Your task to perform on an android device: move a message to another label in the gmail app Image 0: 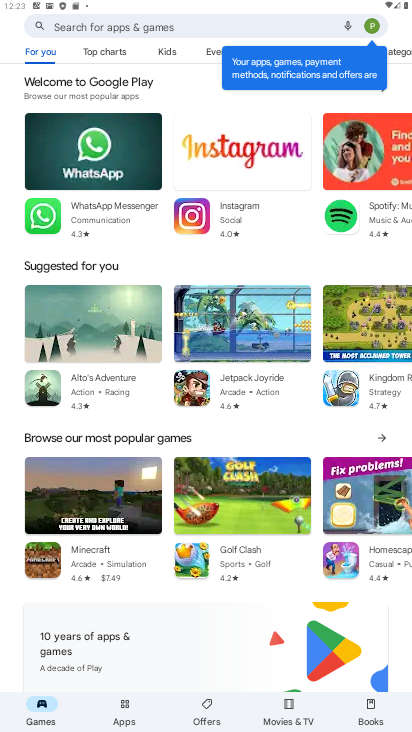
Step 0: press home button
Your task to perform on an android device: move a message to another label in the gmail app Image 1: 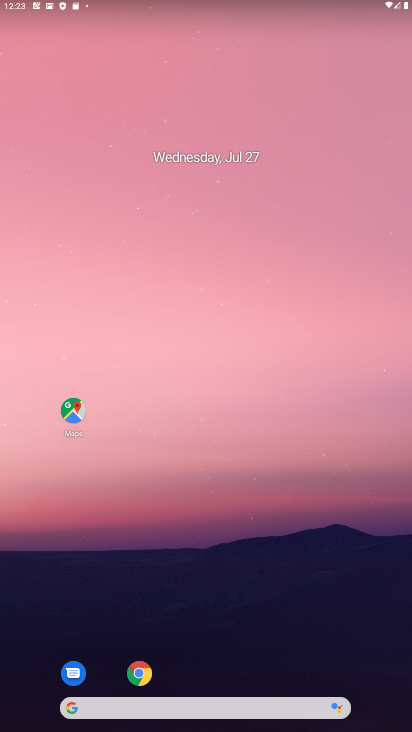
Step 1: drag from (188, 655) to (252, 142)
Your task to perform on an android device: move a message to another label in the gmail app Image 2: 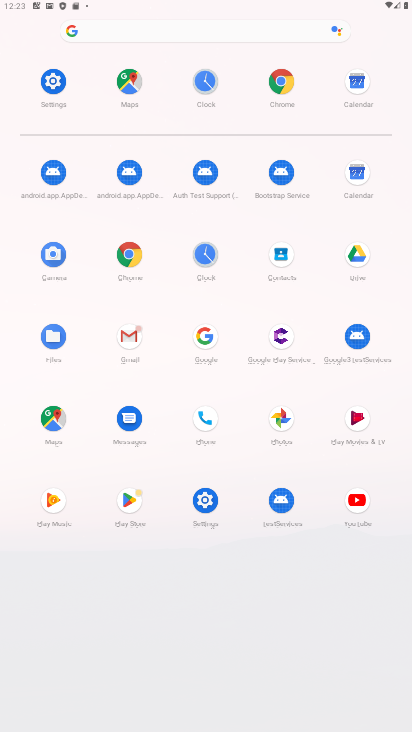
Step 2: click (124, 342)
Your task to perform on an android device: move a message to another label in the gmail app Image 3: 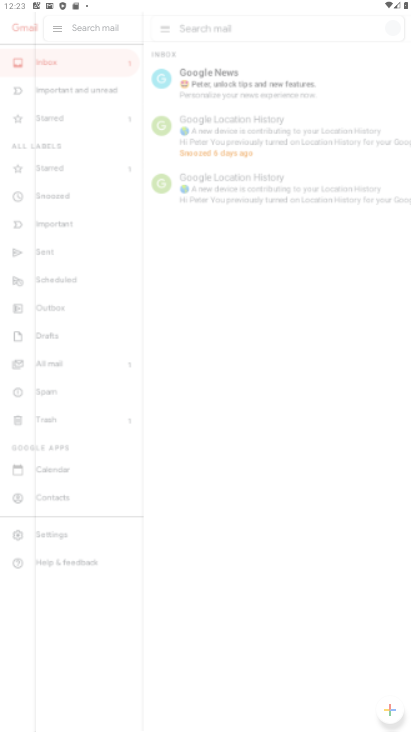
Step 3: click (206, 121)
Your task to perform on an android device: move a message to another label in the gmail app Image 4: 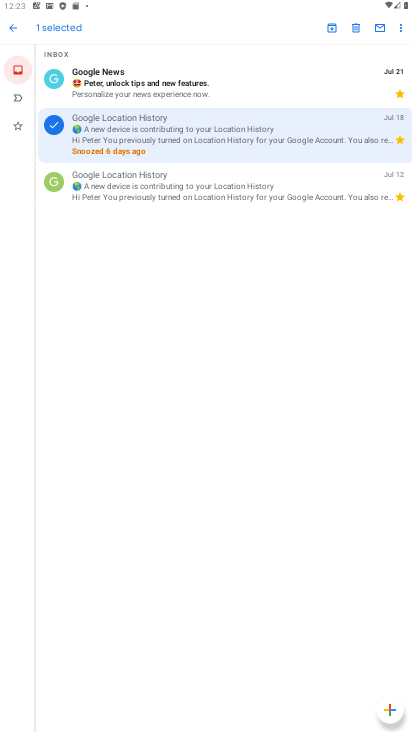
Step 4: click (402, 23)
Your task to perform on an android device: move a message to another label in the gmail app Image 5: 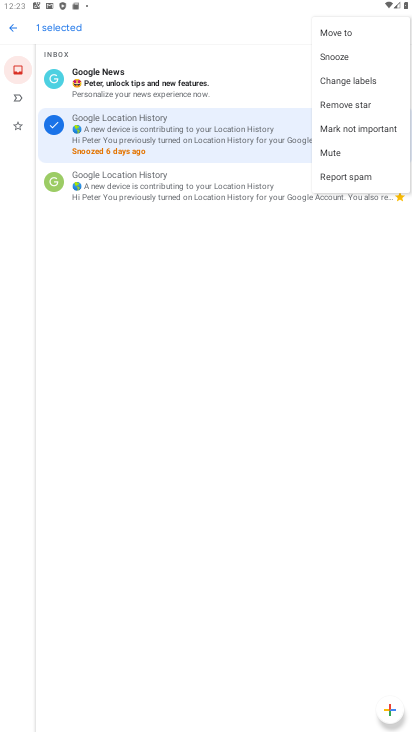
Step 5: click (357, 82)
Your task to perform on an android device: move a message to another label in the gmail app Image 6: 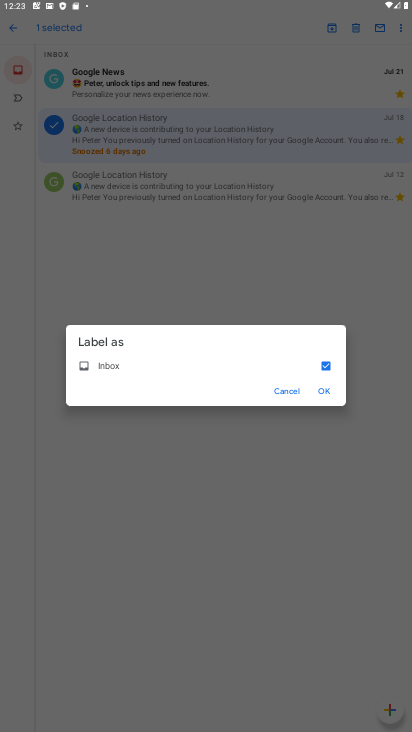
Step 6: click (319, 379)
Your task to perform on an android device: move a message to another label in the gmail app Image 7: 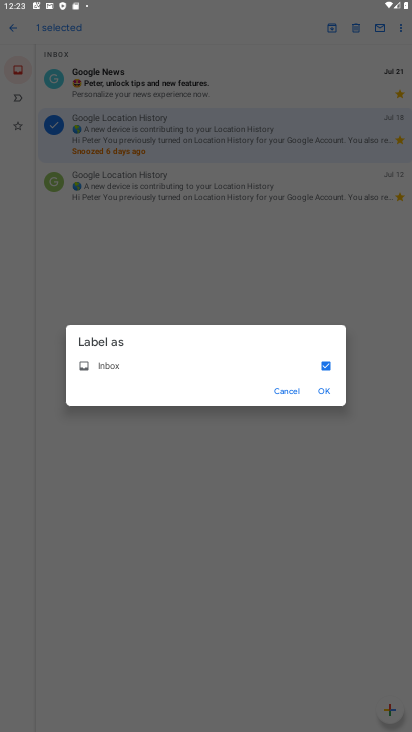
Step 7: click (326, 383)
Your task to perform on an android device: move a message to another label in the gmail app Image 8: 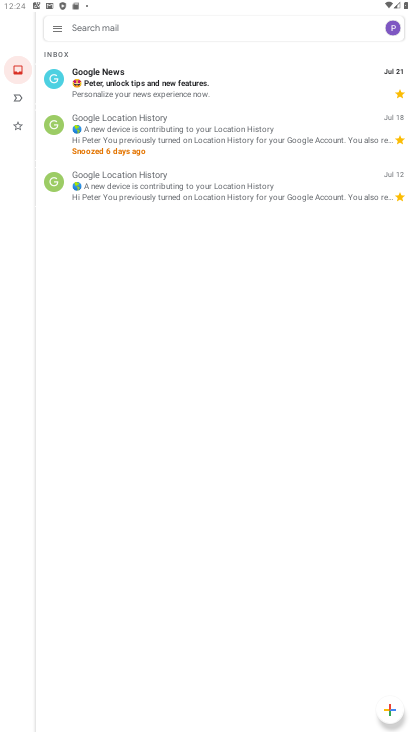
Step 8: task complete